Your task to perform on an android device: create a new album in the google photos Image 0: 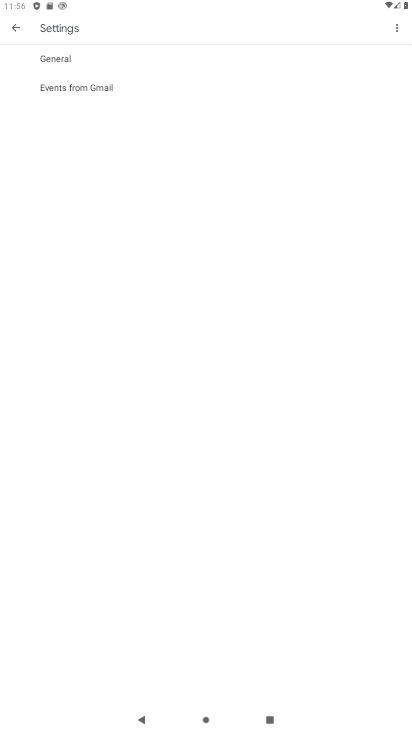
Step 0: press home button
Your task to perform on an android device: create a new album in the google photos Image 1: 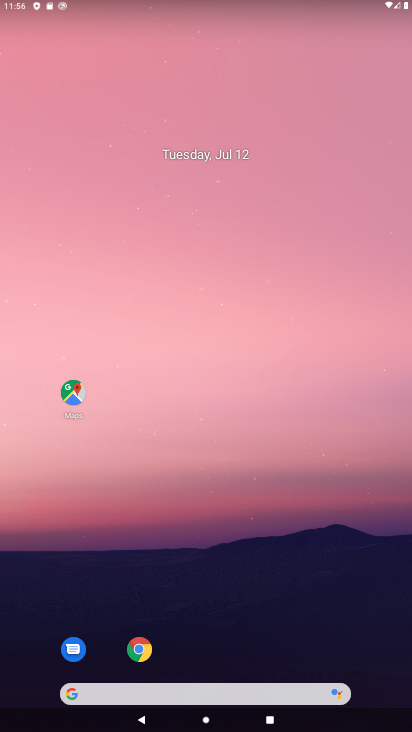
Step 1: drag from (270, 639) to (304, 73)
Your task to perform on an android device: create a new album in the google photos Image 2: 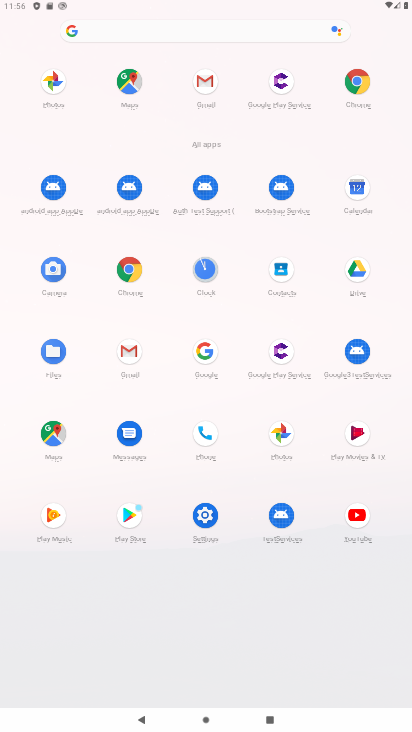
Step 2: click (275, 439)
Your task to perform on an android device: create a new album in the google photos Image 3: 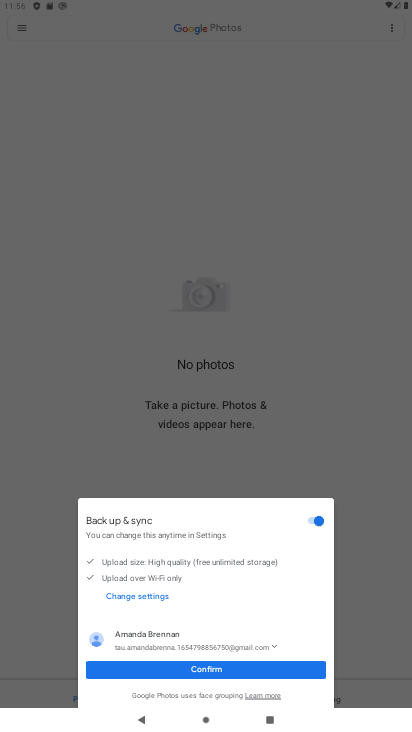
Step 3: click (219, 668)
Your task to perform on an android device: create a new album in the google photos Image 4: 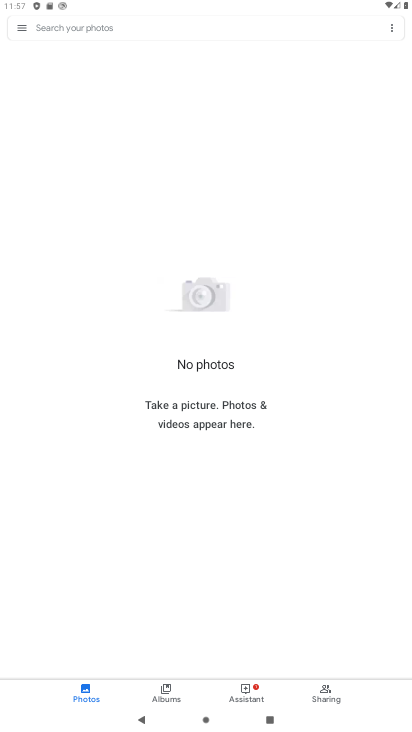
Step 4: task complete